Your task to perform on an android device: open chrome privacy settings Image 0: 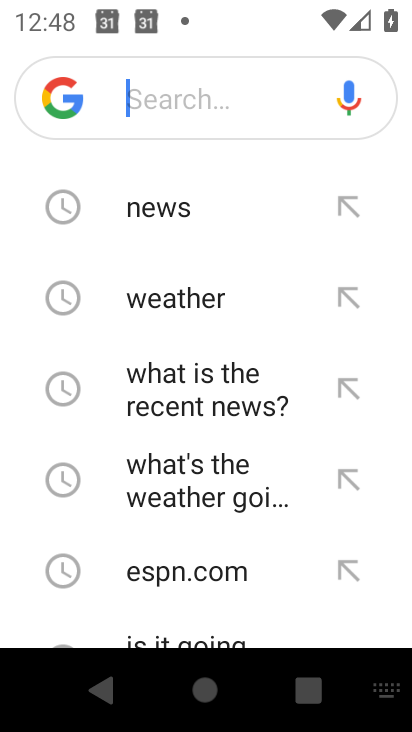
Step 0: press home button
Your task to perform on an android device: open chrome privacy settings Image 1: 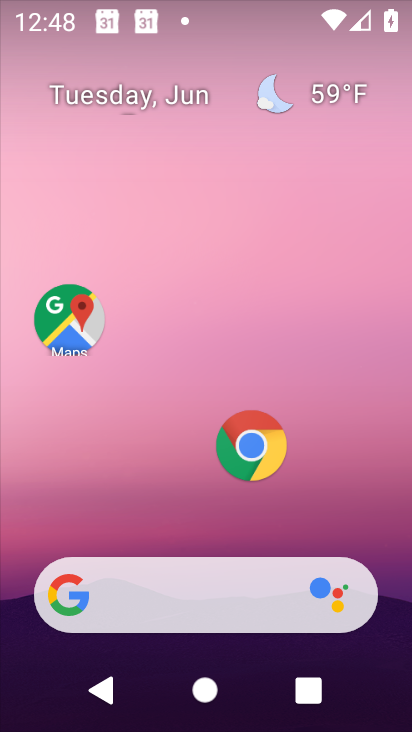
Step 1: click (245, 448)
Your task to perform on an android device: open chrome privacy settings Image 2: 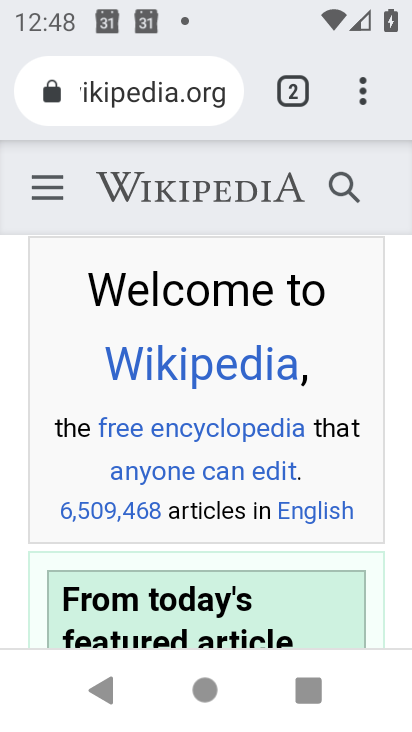
Step 2: click (370, 106)
Your task to perform on an android device: open chrome privacy settings Image 3: 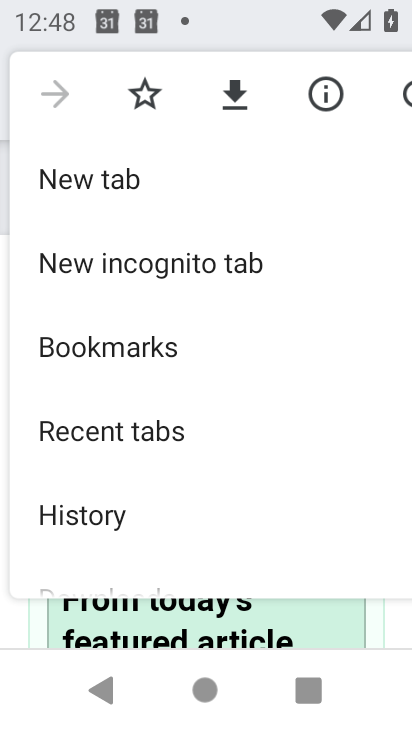
Step 3: drag from (51, 552) to (63, 153)
Your task to perform on an android device: open chrome privacy settings Image 4: 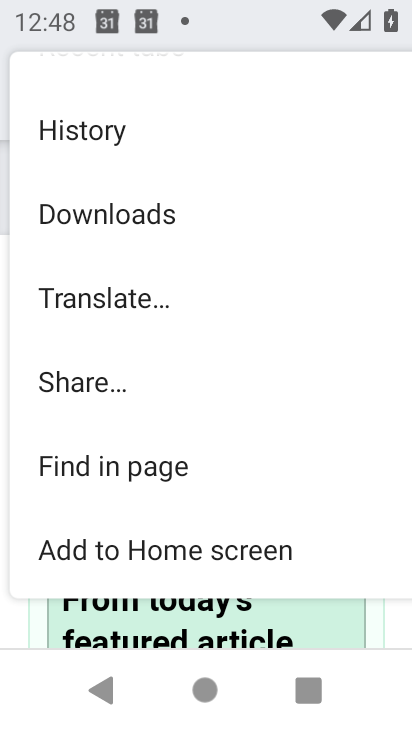
Step 4: drag from (113, 494) to (152, 117)
Your task to perform on an android device: open chrome privacy settings Image 5: 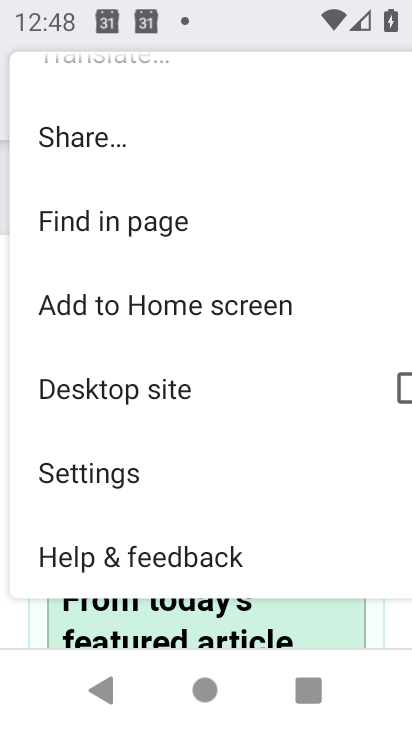
Step 5: drag from (99, 462) to (101, 237)
Your task to perform on an android device: open chrome privacy settings Image 6: 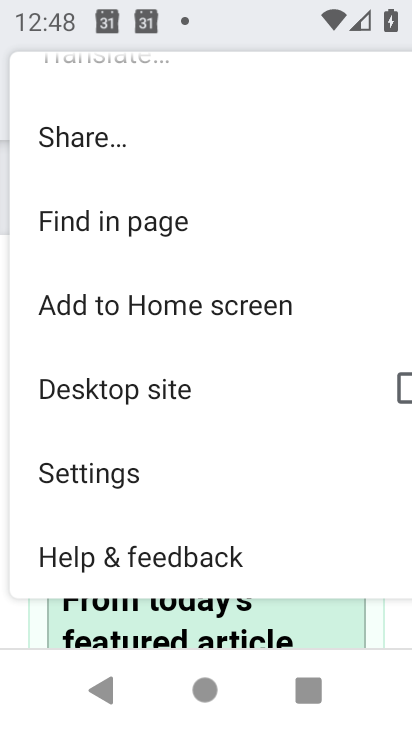
Step 6: click (138, 475)
Your task to perform on an android device: open chrome privacy settings Image 7: 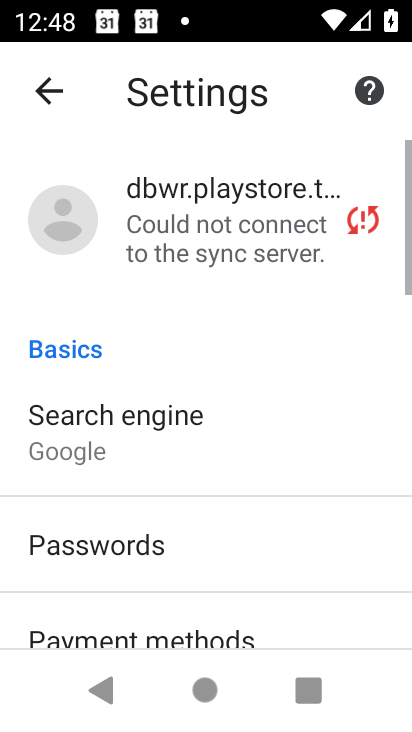
Step 7: drag from (138, 475) to (189, 100)
Your task to perform on an android device: open chrome privacy settings Image 8: 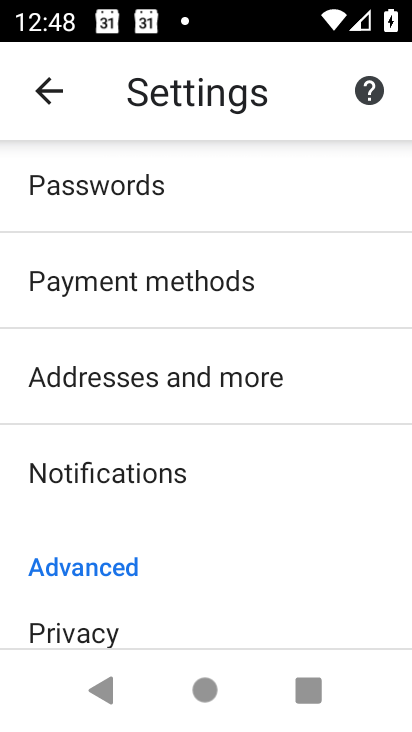
Step 8: click (60, 638)
Your task to perform on an android device: open chrome privacy settings Image 9: 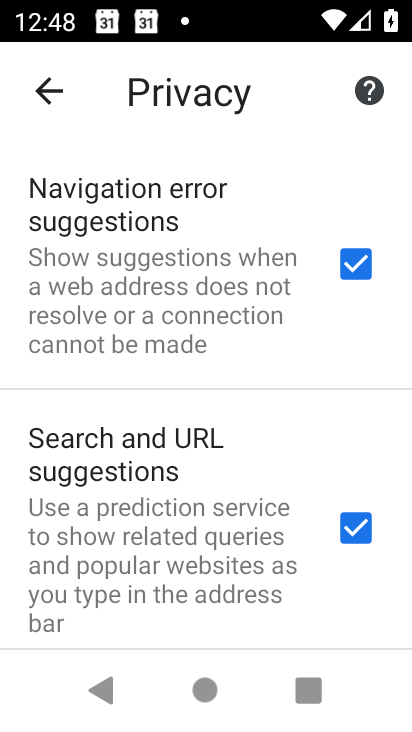
Step 9: task complete